Your task to perform on an android device: change alarm snooze length Image 0: 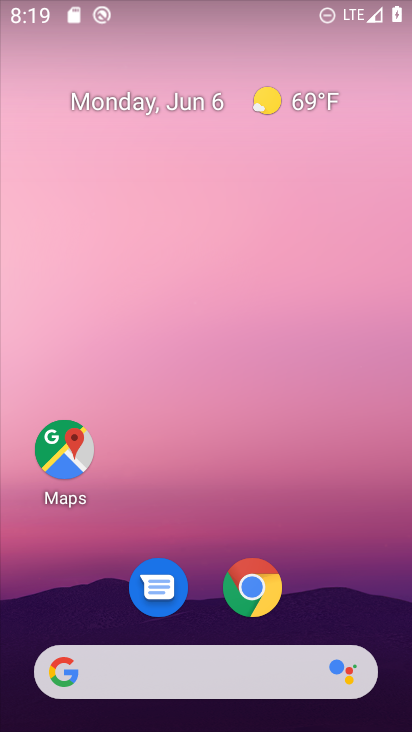
Step 0: drag from (347, 478) to (350, 156)
Your task to perform on an android device: change alarm snooze length Image 1: 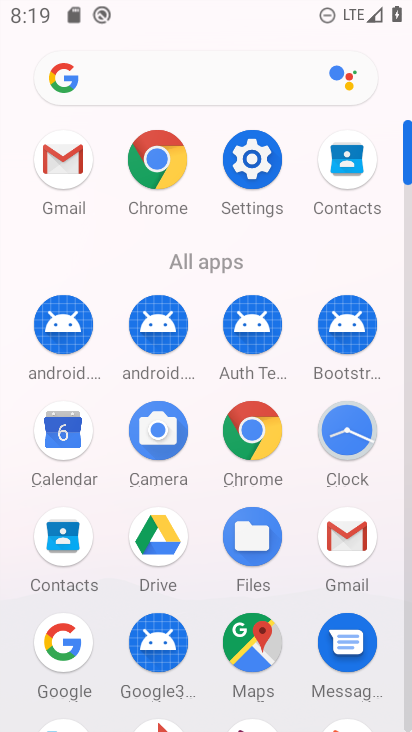
Step 1: click (343, 437)
Your task to perform on an android device: change alarm snooze length Image 2: 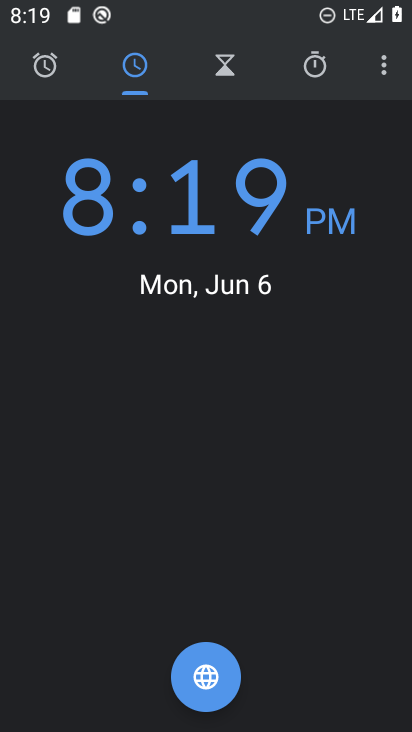
Step 2: click (388, 61)
Your task to perform on an android device: change alarm snooze length Image 3: 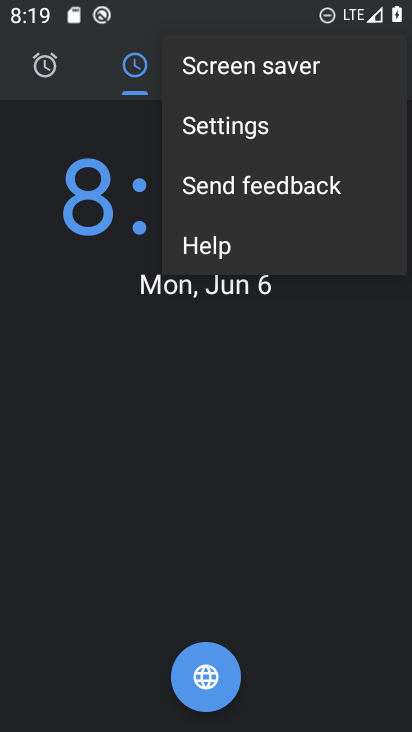
Step 3: click (234, 127)
Your task to perform on an android device: change alarm snooze length Image 4: 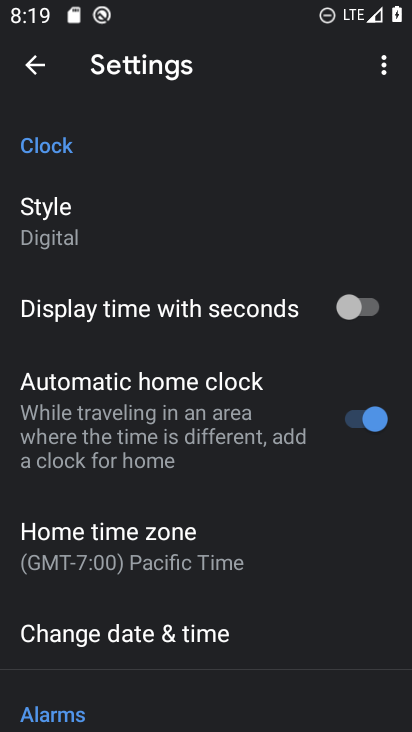
Step 4: drag from (193, 559) to (260, 173)
Your task to perform on an android device: change alarm snooze length Image 5: 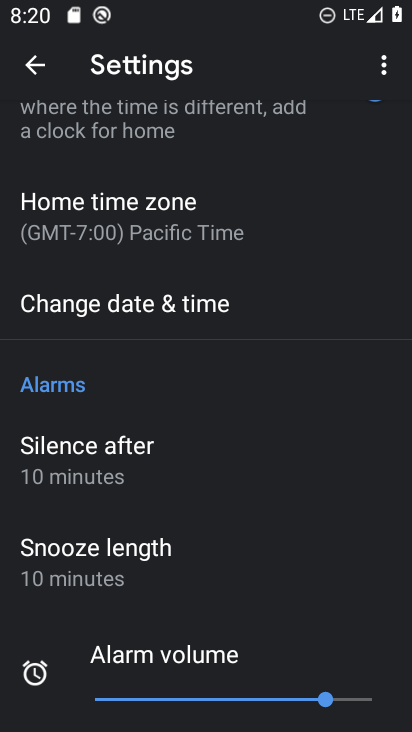
Step 5: click (100, 572)
Your task to perform on an android device: change alarm snooze length Image 6: 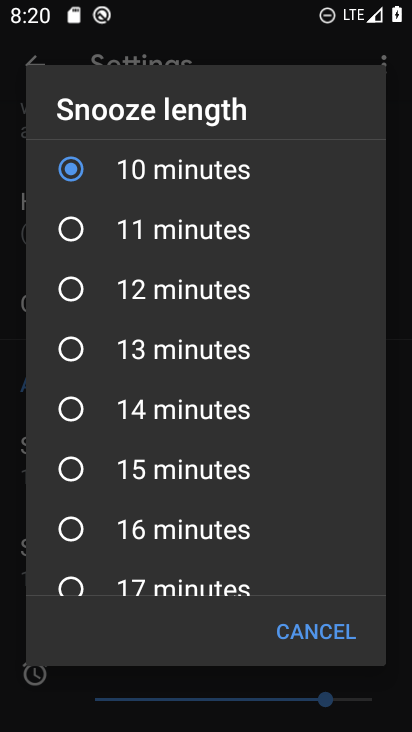
Step 6: click (147, 234)
Your task to perform on an android device: change alarm snooze length Image 7: 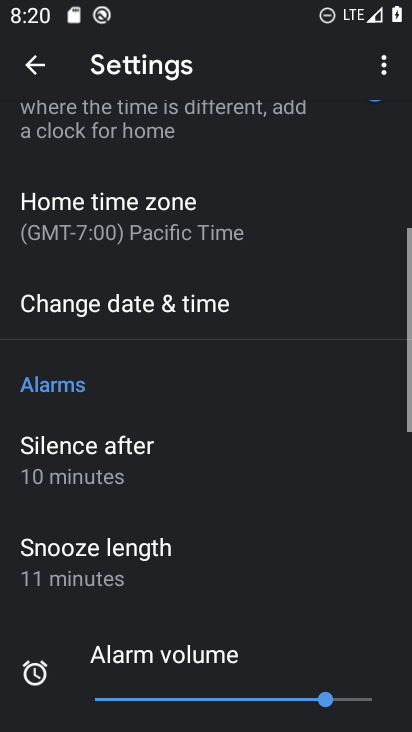
Step 7: task complete